Your task to perform on an android device: change text size in settings app Image 0: 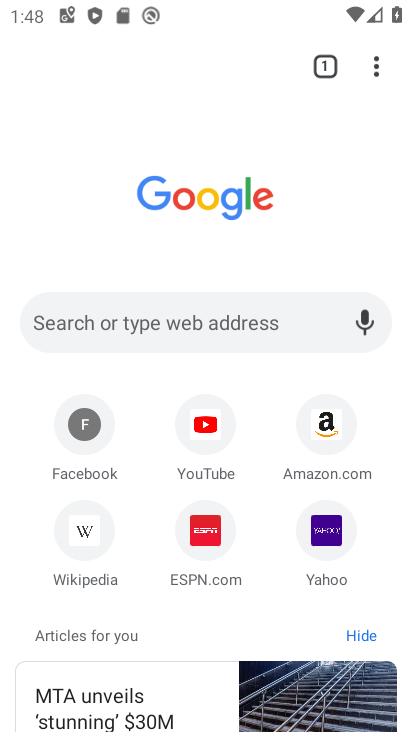
Step 0: press home button
Your task to perform on an android device: change text size in settings app Image 1: 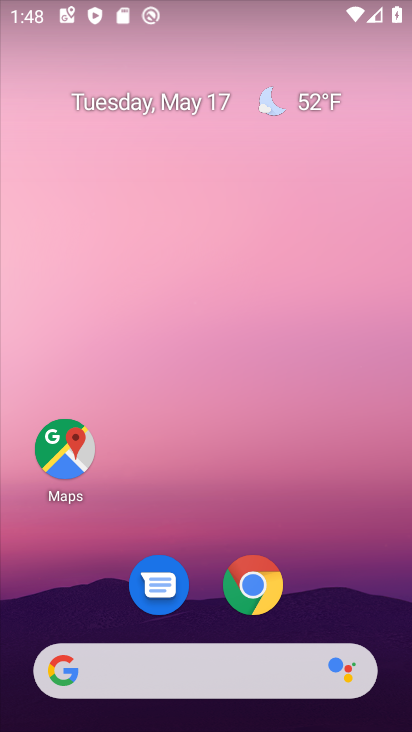
Step 1: drag from (241, 508) to (200, 59)
Your task to perform on an android device: change text size in settings app Image 2: 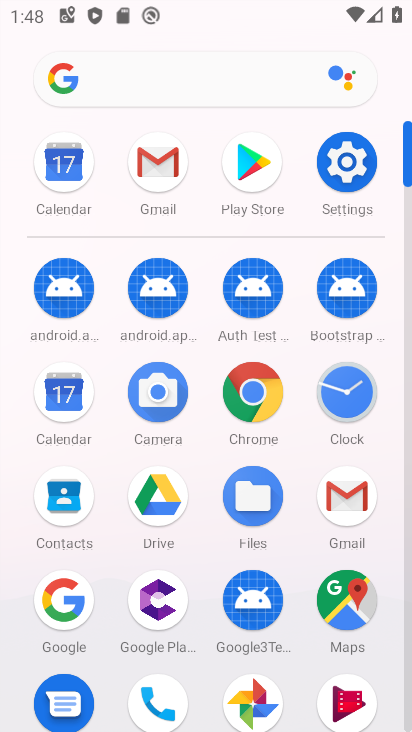
Step 2: click (340, 166)
Your task to perform on an android device: change text size in settings app Image 3: 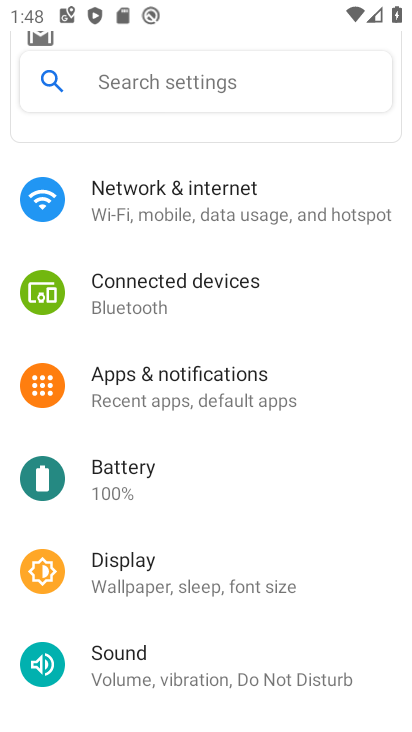
Step 3: click (230, 566)
Your task to perform on an android device: change text size in settings app Image 4: 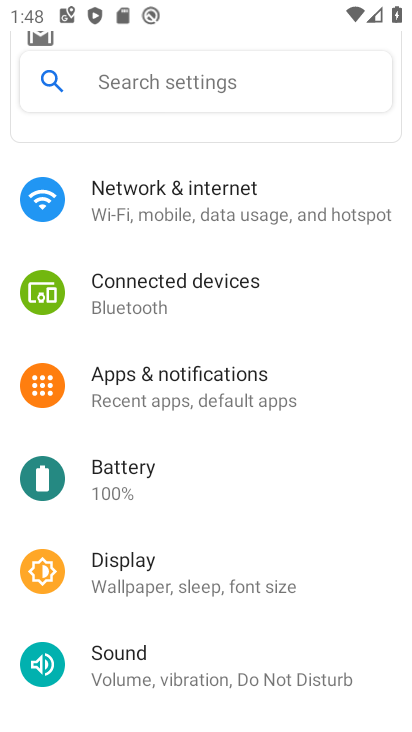
Step 4: click (238, 573)
Your task to perform on an android device: change text size in settings app Image 5: 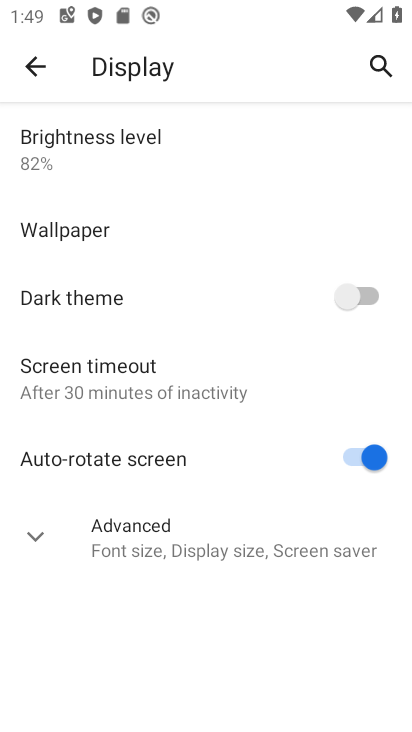
Step 5: click (35, 531)
Your task to perform on an android device: change text size in settings app Image 6: 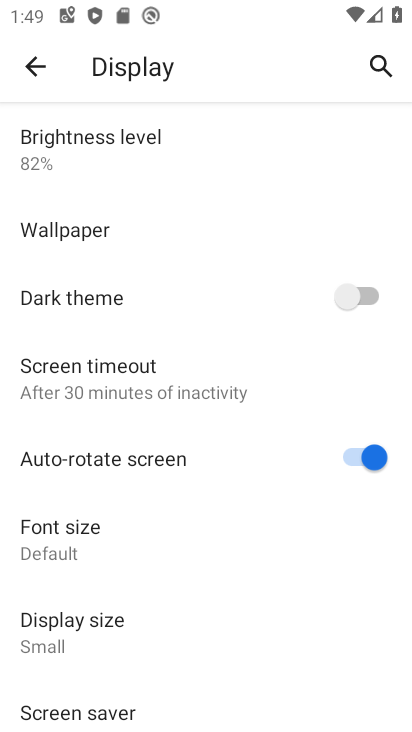
Step 6: click (104, 537)
Your task to perform on an android device: change text size in settings app Image 7: 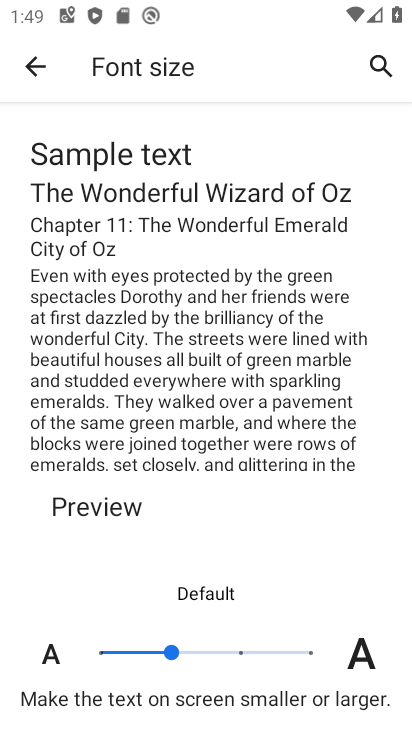
Step 7: click (103, 645)
Your task to perform on an android device: change text size in settings app Image 8: 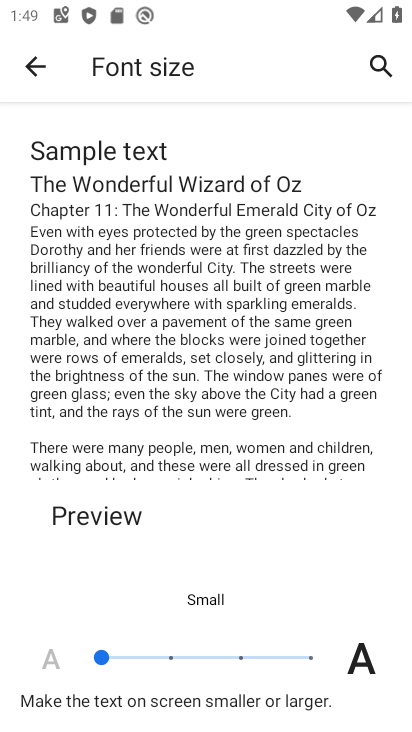
Step 8: click (28, 65)
Your task to perform on an android device: change text size in settings app Image 9: 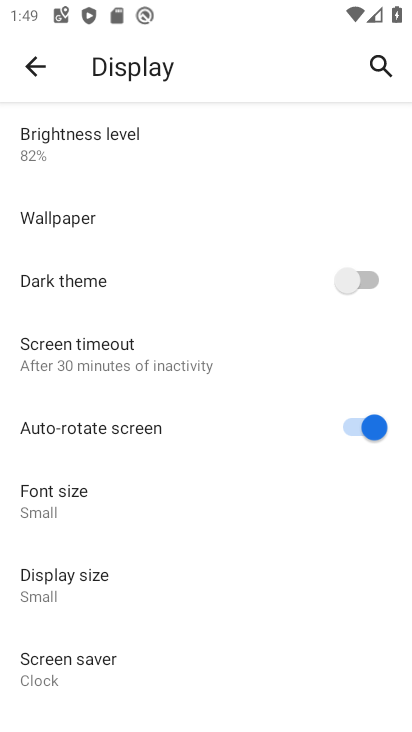
Step 9: task complete